Your task to perform on an android device: check battery use Image 0: 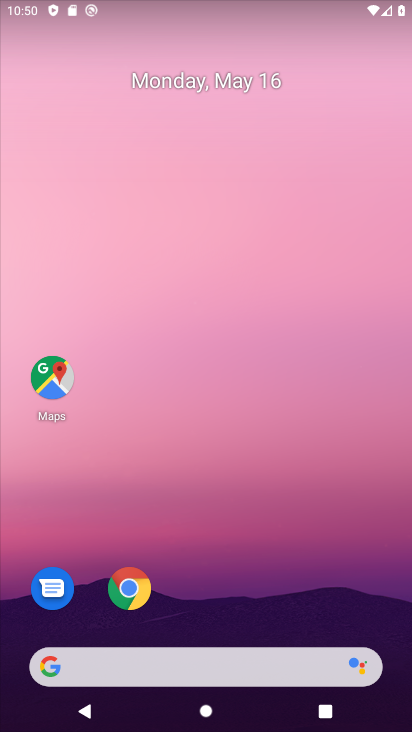
Step 0: drag from (292, 360) to (326, 33)
Your task to perform on an android device: check battery use Image 1: 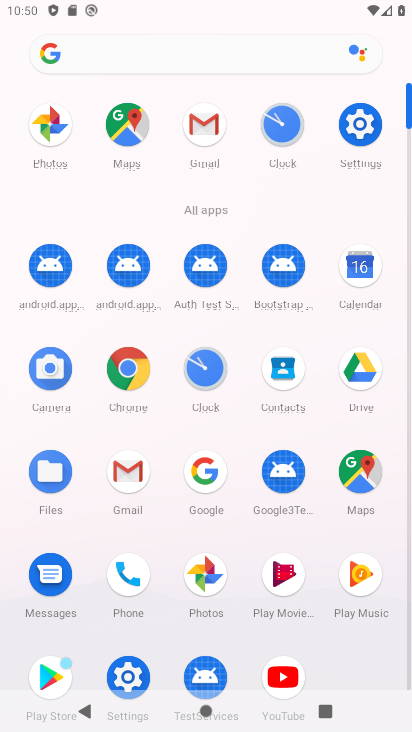
Step 1: click (369, 125)
Your task to perform on an android device: check battery use Image 2: 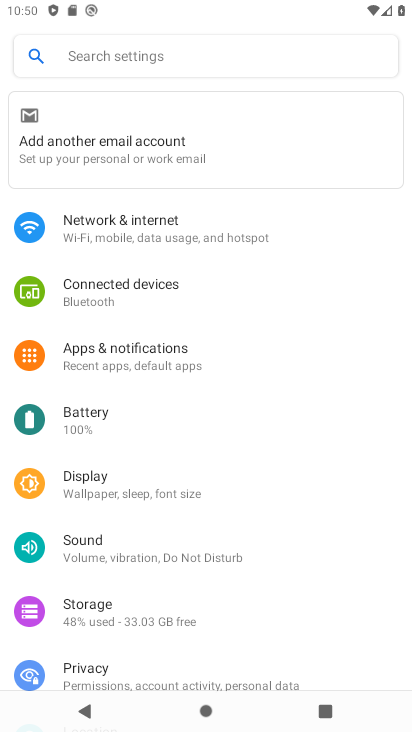
Step 2: click (132, 419)
Your task to perform on an android device: check battery use Image 3: 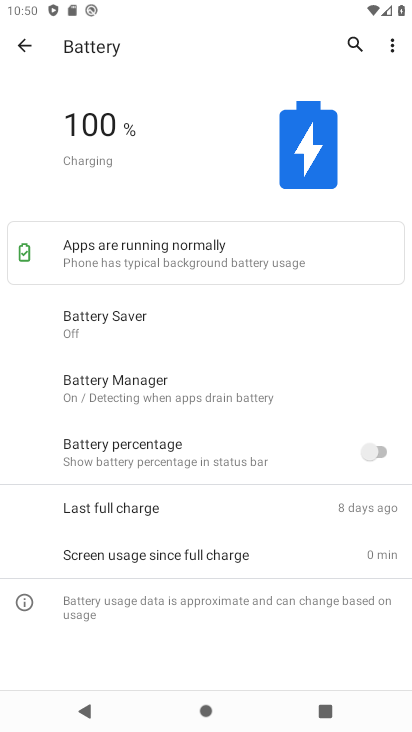
Step 3: click (392, 49)
Your task to perform on an android device: check battery use Image 4: 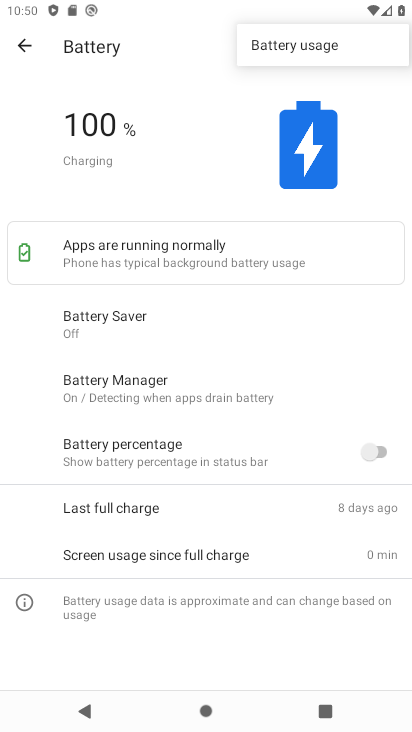
Step 4: click (312, 52)
Your task to perform on an android device: check battery use Image 5: 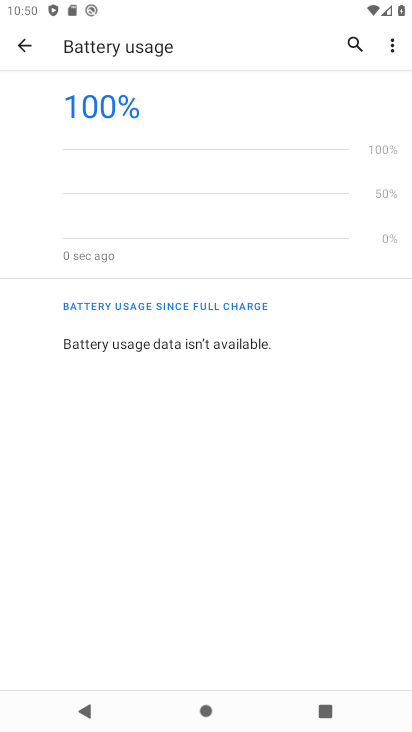
Step 5: task complete